Your task to perform on an android device: Go to Reddit.com Image 0: 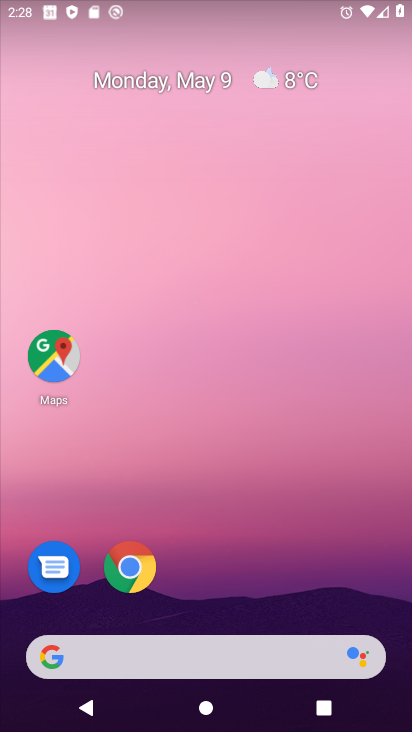
Step 0: drag from (287, 552) to (277, 312)
Your task to perform on an android device: Go to Reddit.com Image 1: 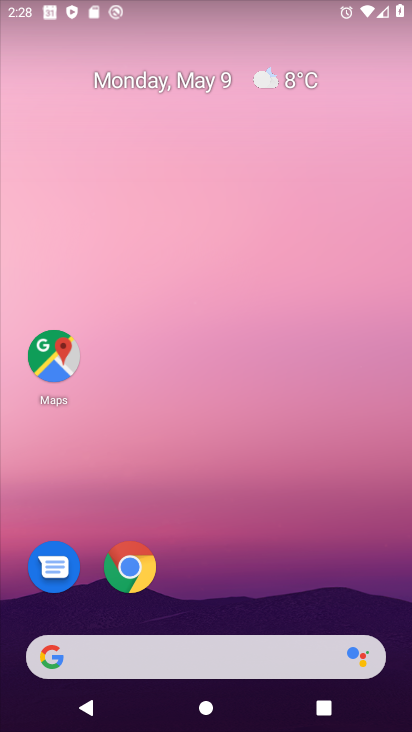
Step 1: drag from (227, 345) to (227, 262)
Your task to perform on an android device: Go to Reddit.com Image 2: 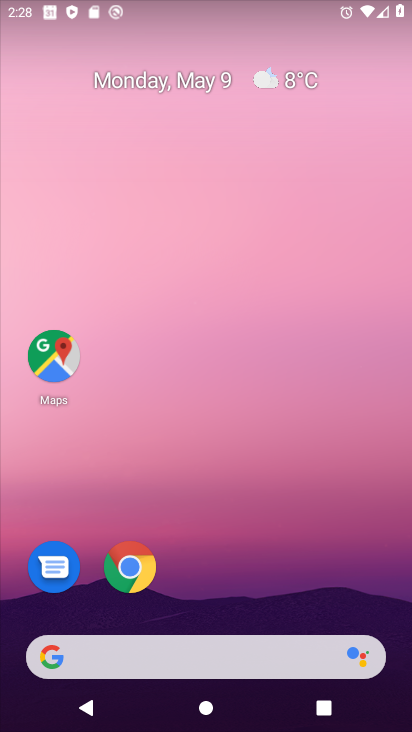
Step 2: drag from (230, 625) to (301, 385)
Your task to perform on an android device: Go to Reddit.com Image 3: 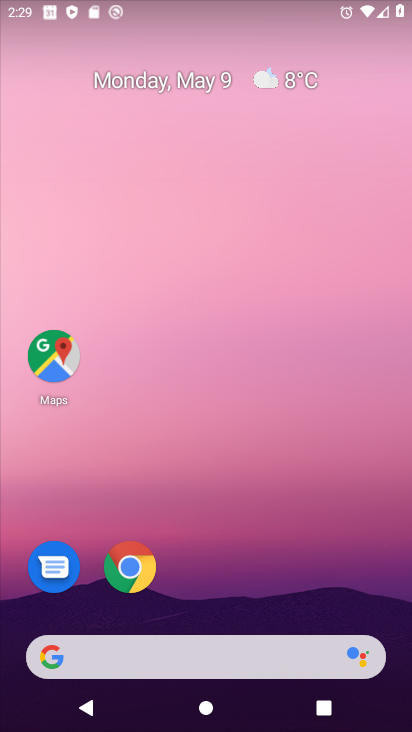
Step 3: drag from (305, 422) to (326, 195)
Your task to perform on an android device: Go to Reddit.com Image 4: 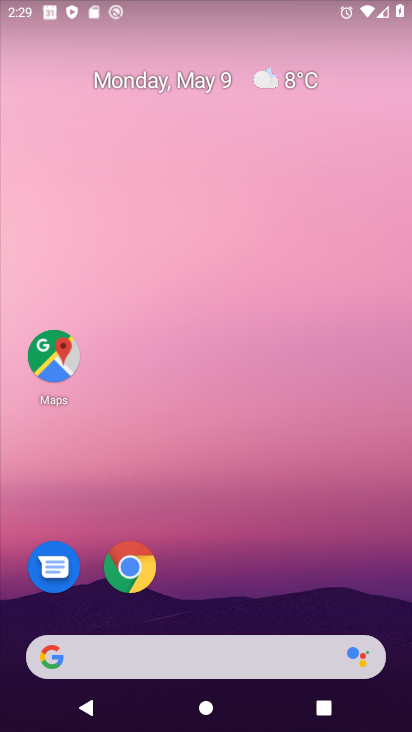
Step 4: drag from (209, 601) to (223, 202)
Your task to perform on an android device: Go to Reddit.com Image 5: 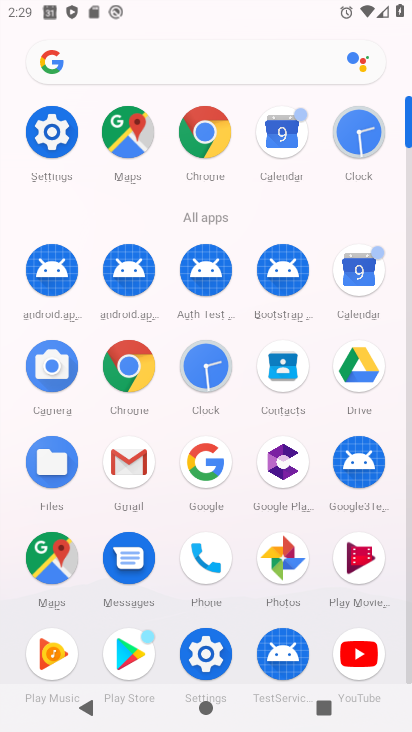
Step 5: click (110, 364)
Your task to perform on an android device: Go to Reddit.com Image 6: 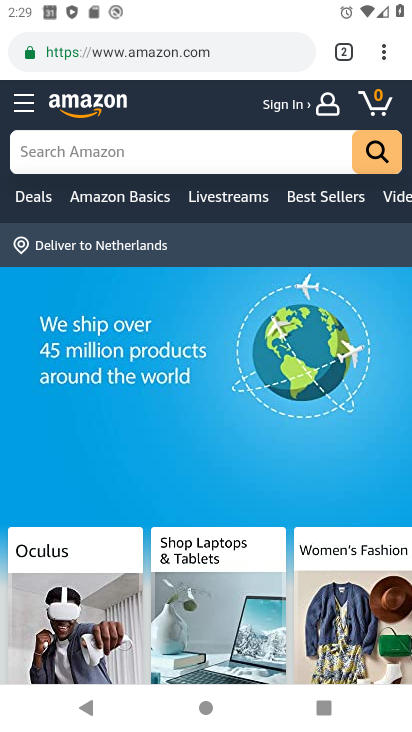
Step 6: click (367, 58)
Your task to perform on an android device: Go to Reddit.com Image 7: 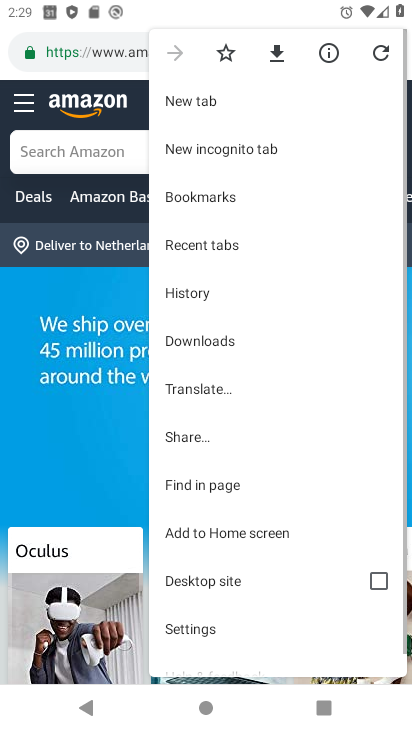
Step 7: click (190, 98)
Your task to perform on an android device: Go to Reddit.com Image 8: 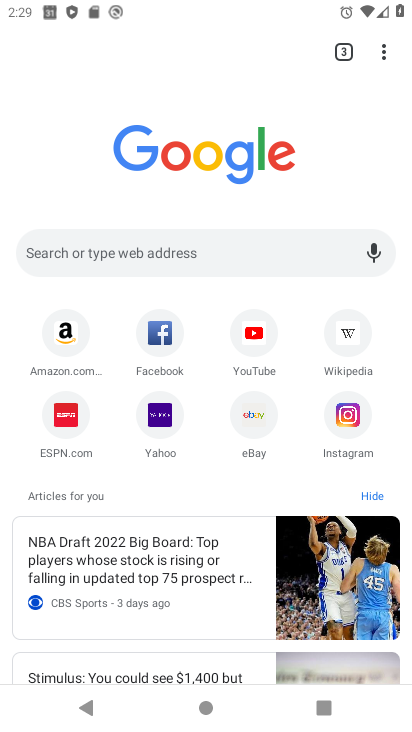
Step 8: click (181, 246)
Your task to perform on an android device: Go to Reddit.com Image 9: 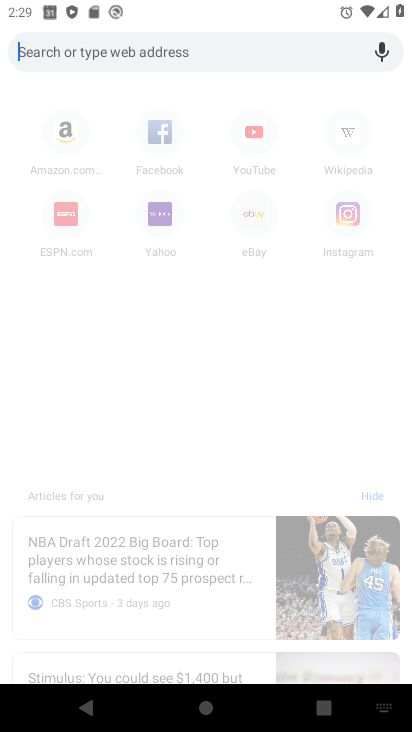
Step 9: type "Reddit.com"
Your task to perform on an android device: Go to Reddit.com Image 10: 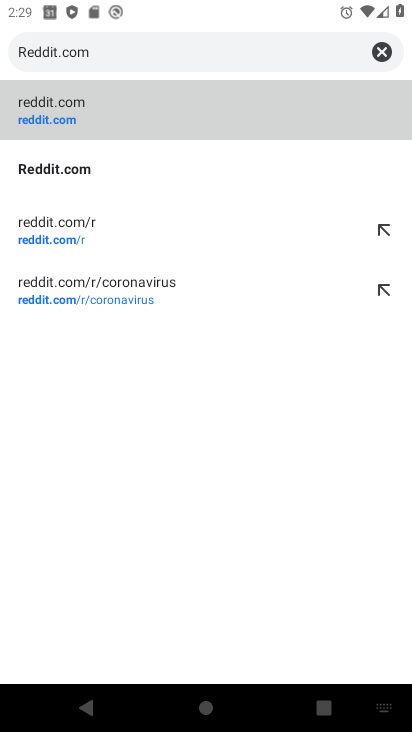
Step 10: click (93, 170)
Your task to perform on an android device: Go to Reddit.com Image 11: 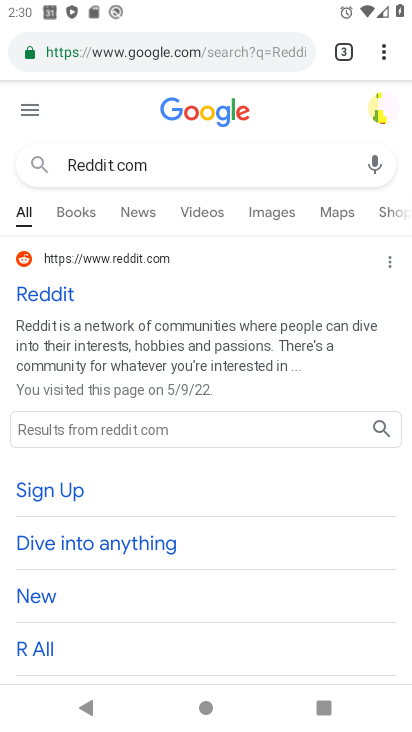
Step 11: task complete